Your task to perform on an android device: Open accessibility settings Image 0: 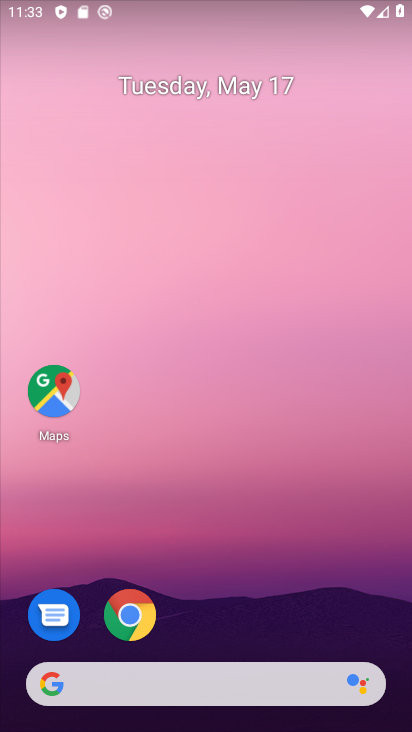
Step 0: drag from (248, 641) to (171, 120)
Your task to perform on an android device: Open accessibility settings Image 1: 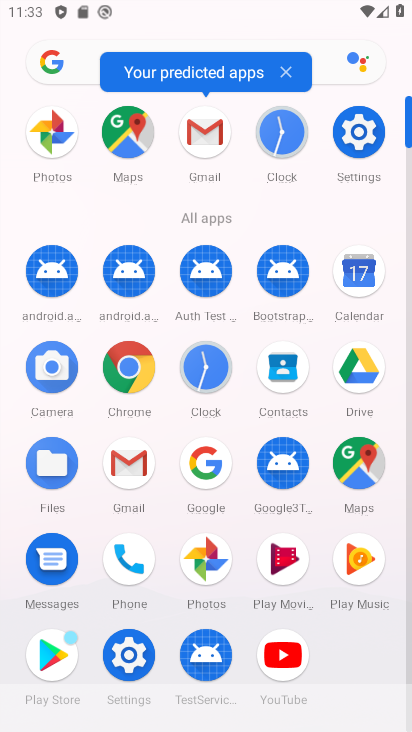
Step 1: click (124, 655)
Your task to perform on an android device: Open accessibility settings Image 2: 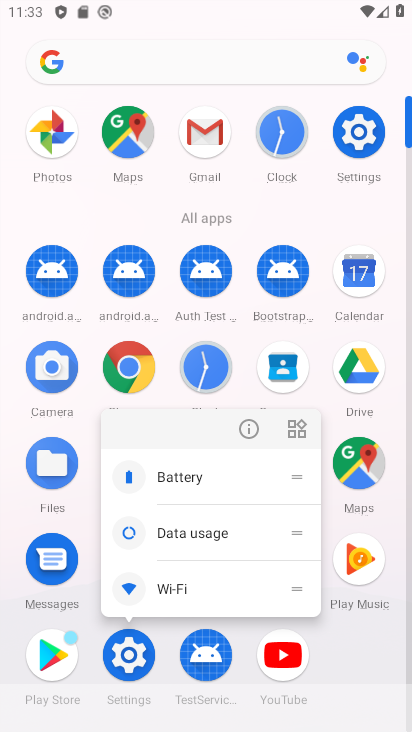
Step 2: click (135, 662)
Your task to perform on an android device: Open accessibility settings Image 3: 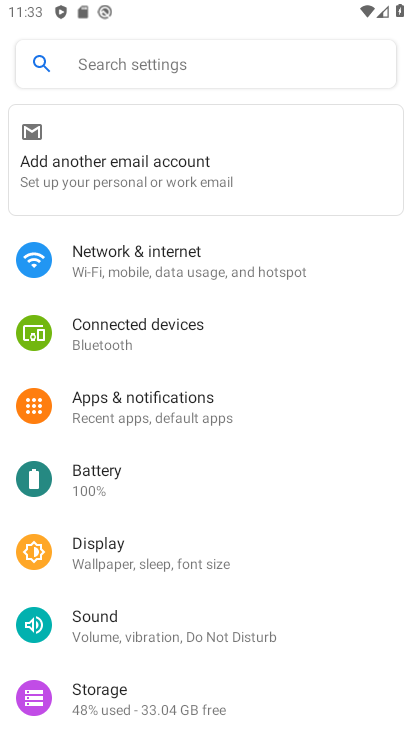
Step 3: drag from (154, 648) to (171, 99)
Your task to perform on an android device: Open accessibility settings Image 4: 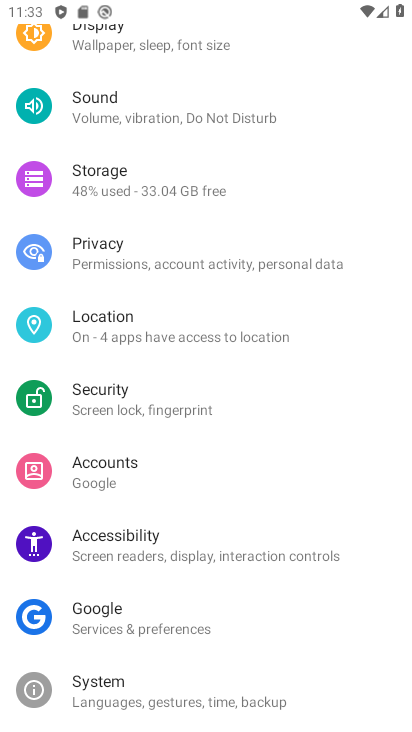
Step 4: drag from (137, 650) to (121, 13)
Your task to perform on an android device: Open accessibility settings Image 5: 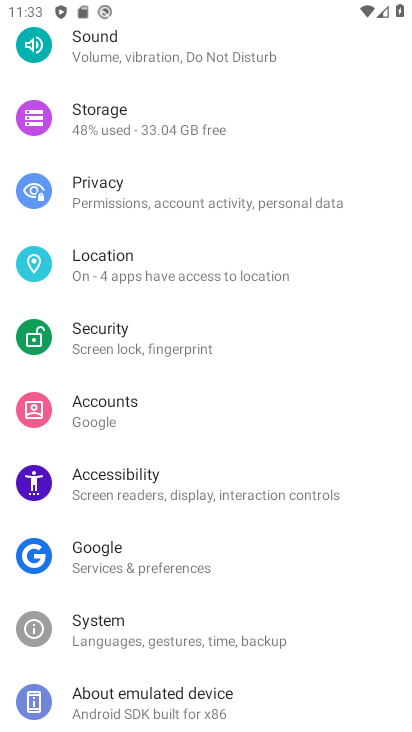
Step 5: click (152, 465)
Your task to perform on an android device: Open accessibility settings Image 6: 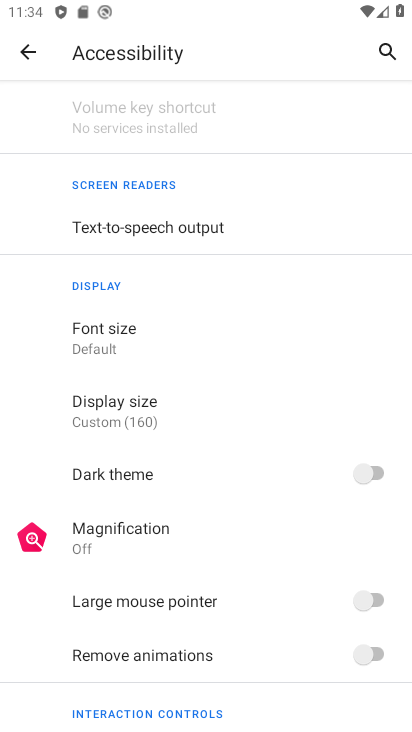
Step 6: task complete